Your task to perform on an android device: turn on the 12-hour format for clock Image 0: 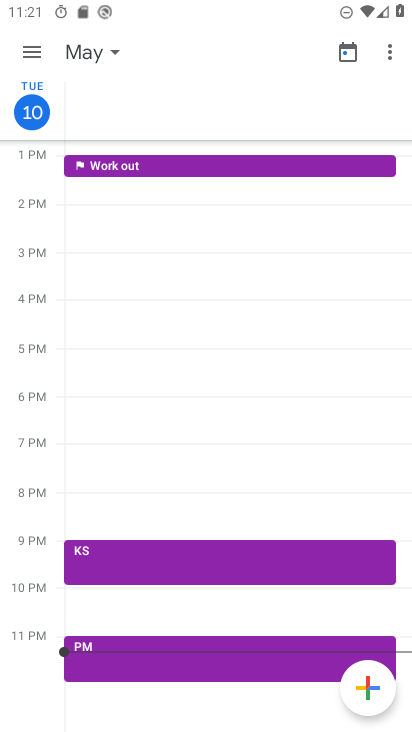
Step 0: drag from (171, 616) to (333, 226)
Your task to perform on an android device: turn on the 12-hour format for clock Image 1: 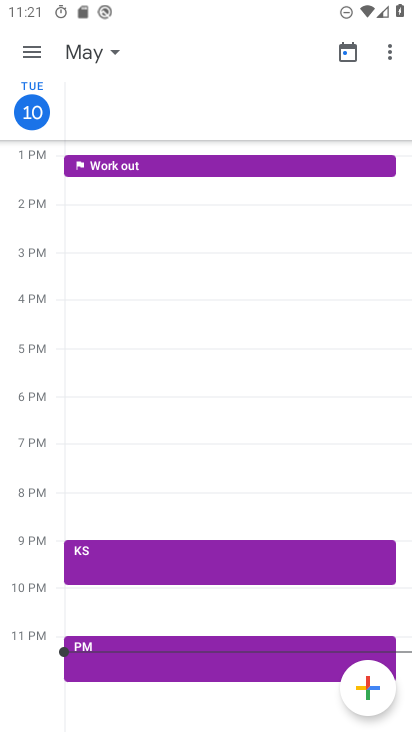
Step 1: press home button
Your task to perform on an android device: turn on the 12-hour format for clock Image 2: 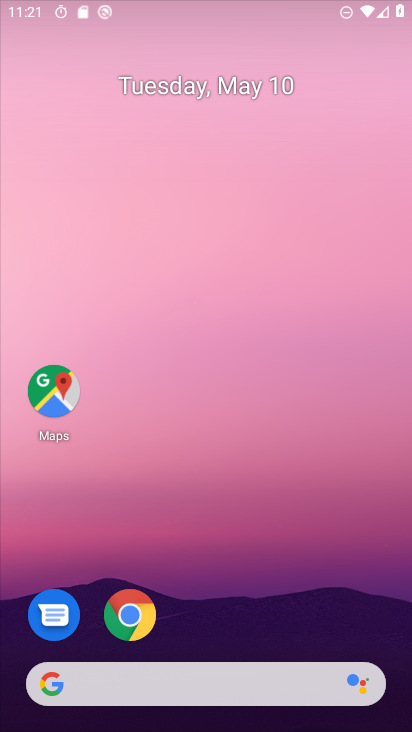
Step 2: drag from (230, 603) to (282, 221)
Your task to perform on an android device: turn on the 12-hour format for clock Image 3: 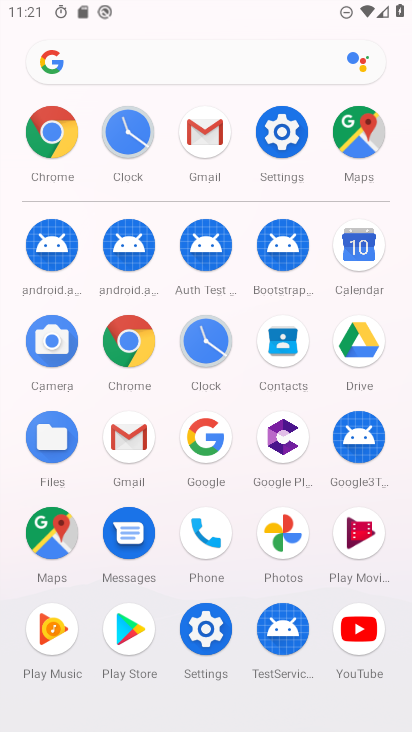
Step 3: click (208, 335)
Your task to perform on an android device: turn on the 12-hour format for clock Image 4: 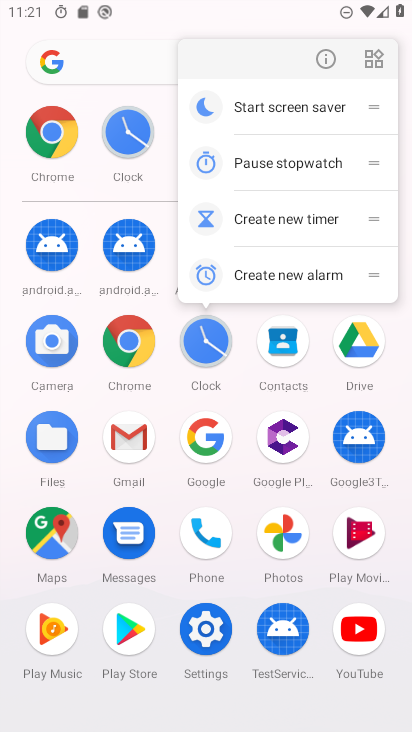
Step 4: click (321, 55)
Your task to perform on an android device: turn on the 12-hour format for clock Image 5: 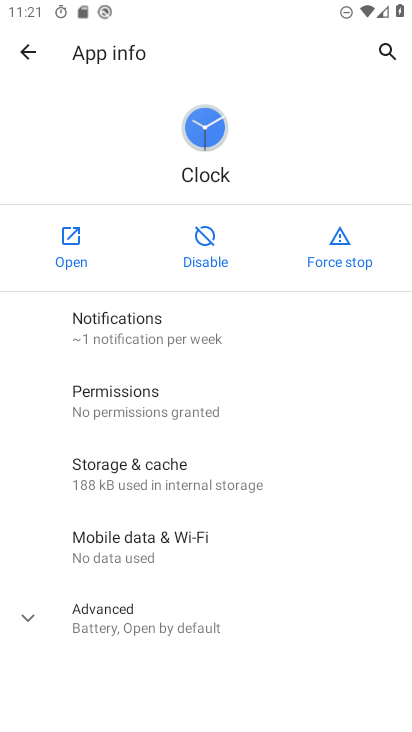
Step 5: click (79, 261)
Your task to perform on an android device: turn on the 12-hour format for clock Image 6: 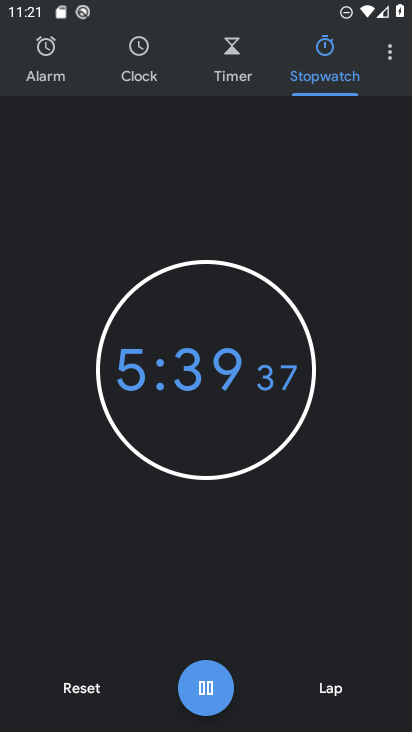
Step 6: click (217, 686)
Your task to perform on an android device: turn on the 12-hour format for clock Image 7: 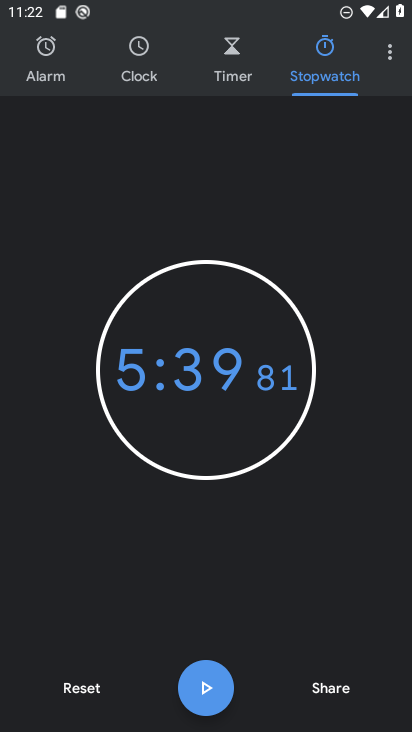
Step 7: click (204, 686)
Your task to perform on an android device: turn on the 12-hour format for clock Image 8: 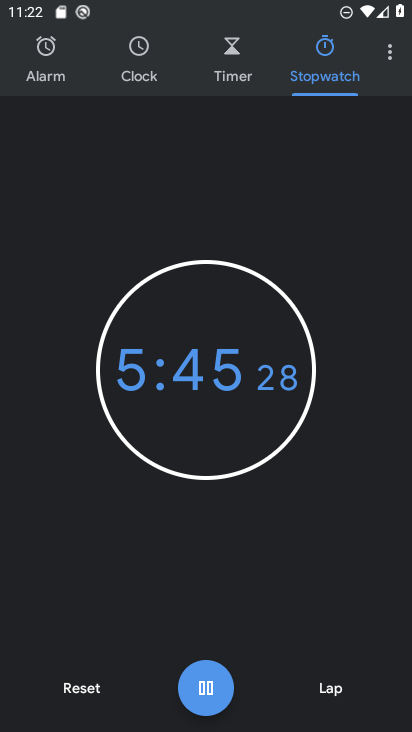
Step 8: click (395, 56)
Your task to perform on an android device: turn on the 12-hour format for clock Image 9: 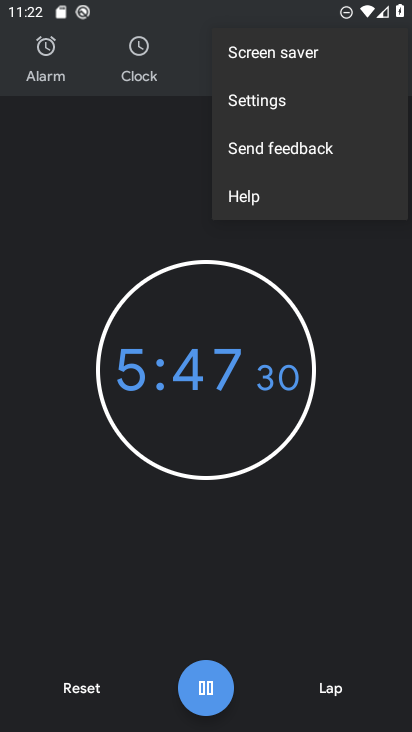
Step 9: click (269, 102)
Your task to perform on an android device: turn on the 12-hour format for clock Image 10: 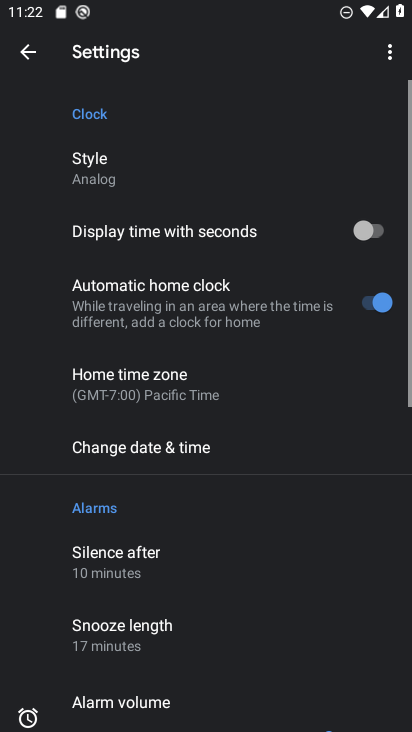
Step 10: drag from (234, 517) to (271, 287)
Your task to perform on an android device: turn on the 12-hour format for clock Image 11: 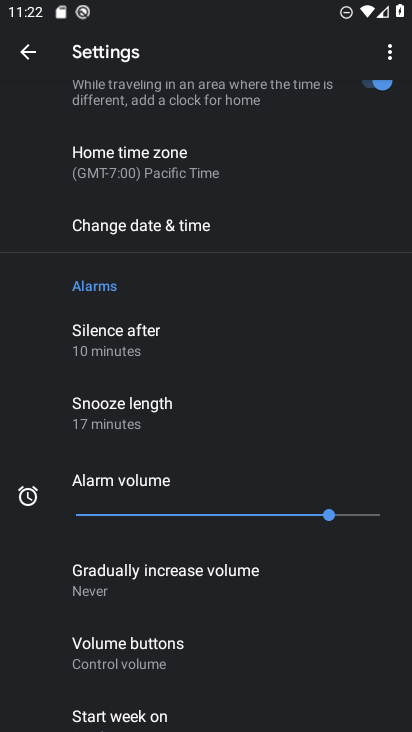
Step 11: click (138, 230)
Your task to perform on an android device: turn on the 12-hour format for clock Image 12: 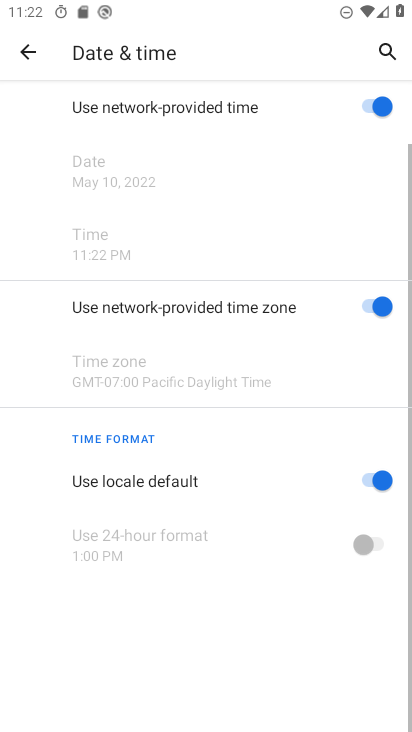
Step 12: task complete